Your task to perform on an android device: turn pop-ups off in chrome Image 0: 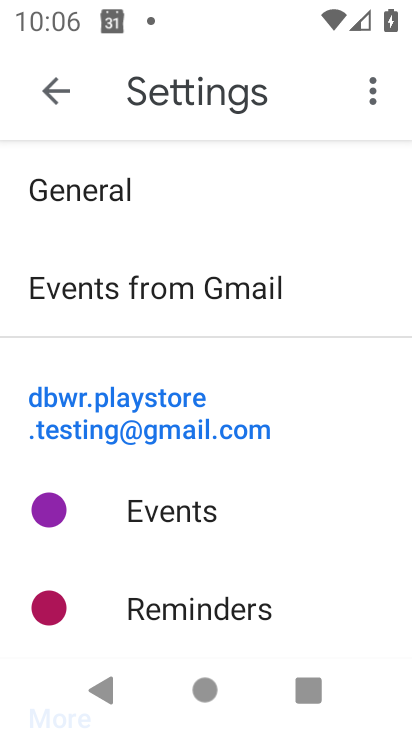
Step 0: press home button
Your task to perform on an android device: turn pop-ups off in chrome Image 1: 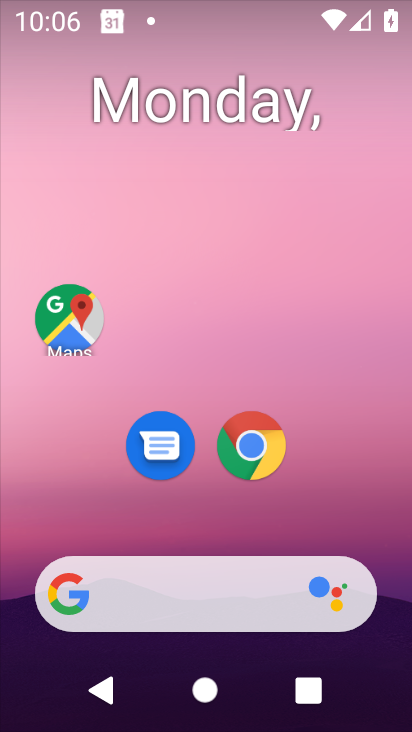
Step 1: click (247, 444)
Your task to perform on an android device: turn pop-ups off in chrome Image 2: 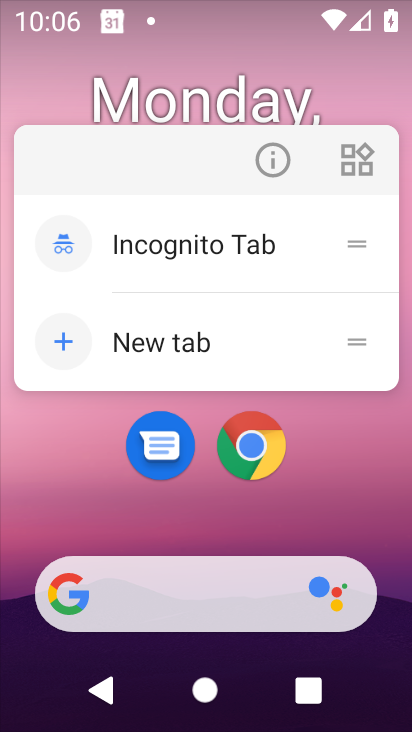
Step 2: click (270, 432)
Your task to perform on an android device: turn pop-ups off in chrome Image 3: 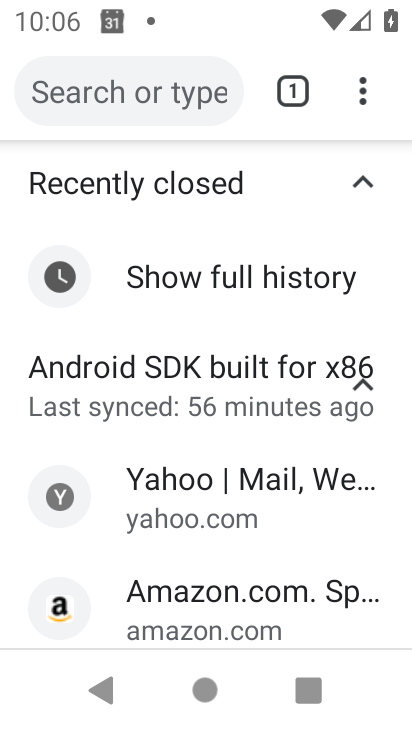
Step 3: click (358, 85)
Your task to perform on an android device: turn pop-ups off in chrome Image 4: 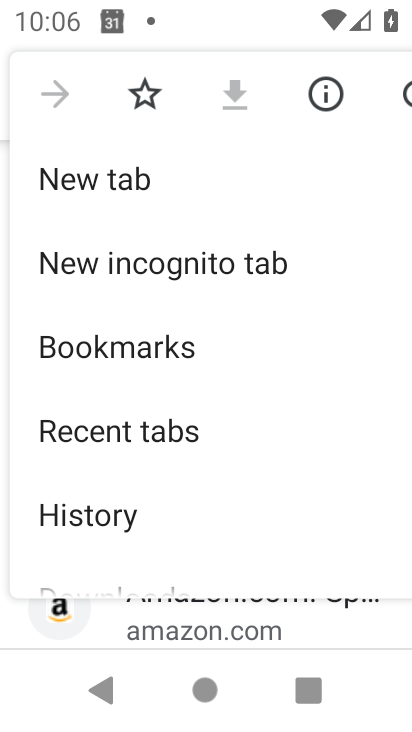
Step 4: drag from (274, 491) to (358, 21)
Your task to perform on an android device: turn pop-ups off in chrome Image 5: 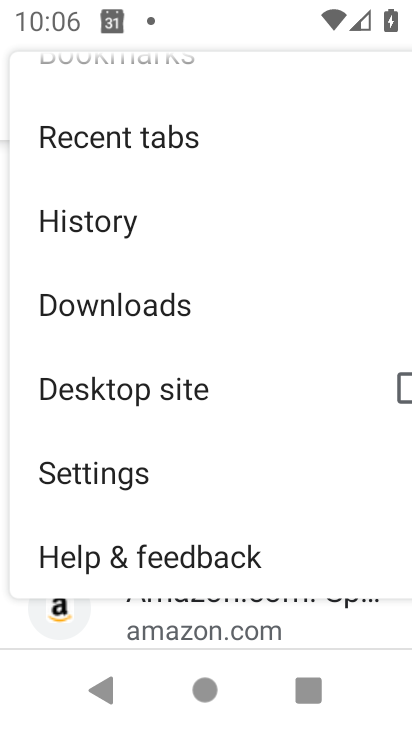
Step 5: click (184, 470)
Your task to perform on an android device: turn pop-ups off in chrome Image 6: 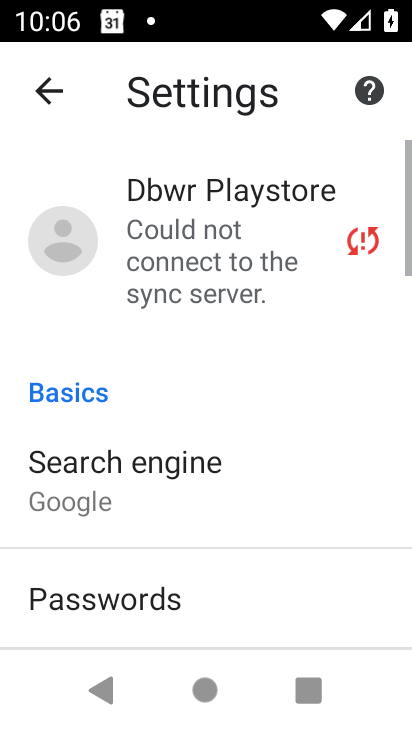
Step 6: drag from (245, 519) to (312, 13)
Your task to perform on an android device: turn pop-ups off in chrome Image 7: 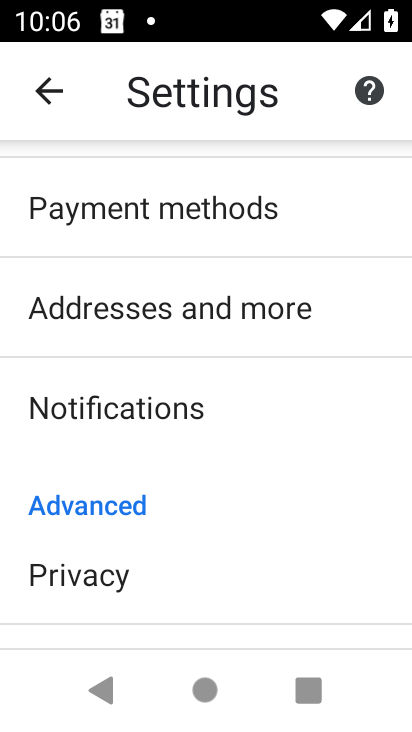
Step 7: drag from (260, 577) to (229, 137)
Your task to perform on an android device: turn pop-ups off in chrome Image 8: 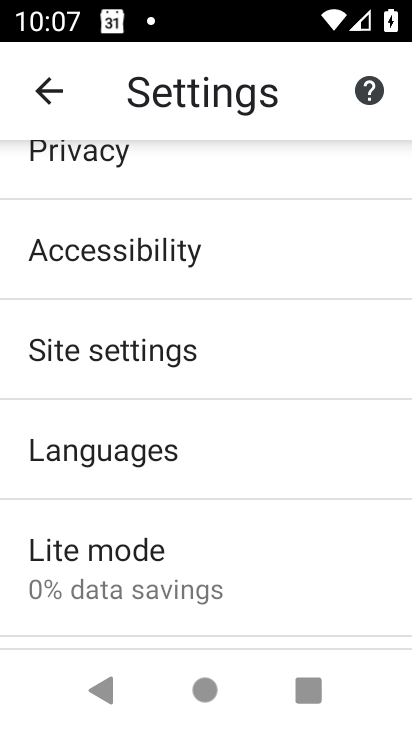
Step 8: click (219, 352)
Your task to perform on an android device: turn pop-ups off in chrome Image 9: 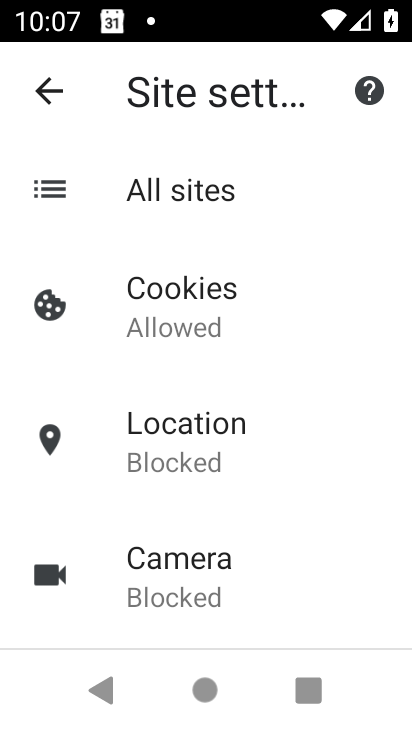
Step 9: drag from (275, 564) to (344, 128)
Your task to perform on an android device: turn pop-ups off in chrome Image 10: 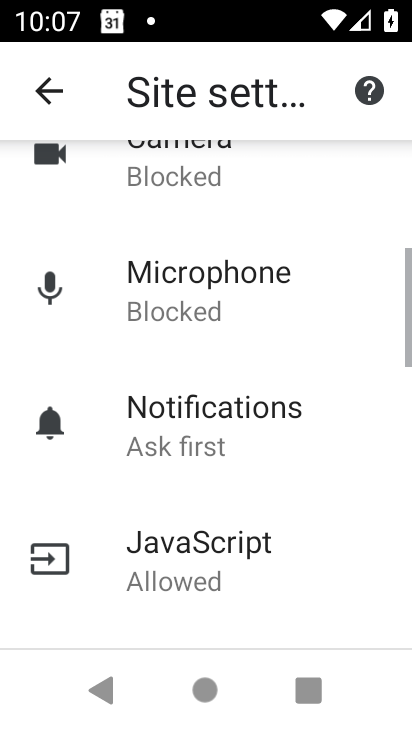
Step 10: drag from (316, 606) to (303, 110)
Your task to perform on an android device: turn pop-ups off in chrome Image 11: 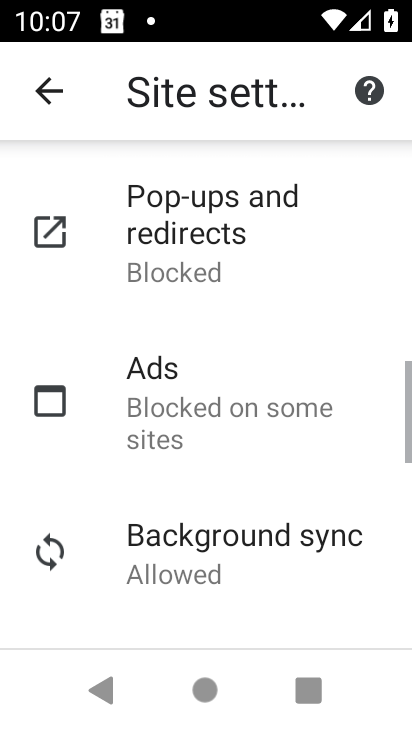
Step 11: click (271, 241)
Your task to perform on an android device: turn pop-ups off in chrome Image 12: 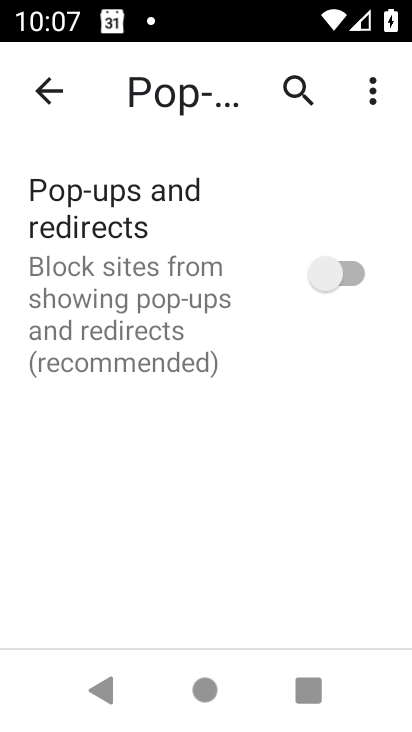
Step 12: task complete